Your task to perform on an android device: What's on my calendar today? Image 0: 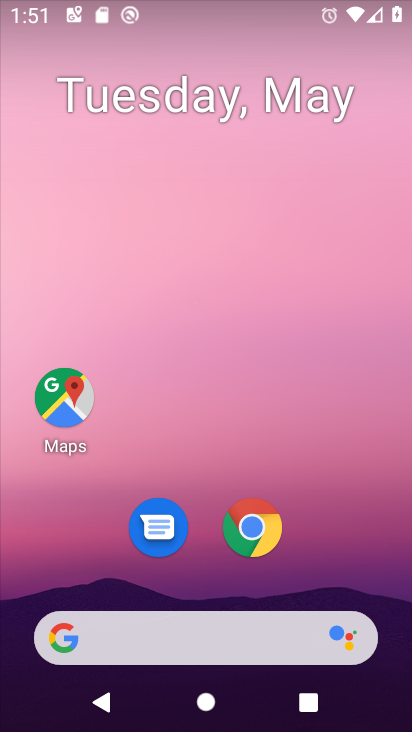
Step 0: drag from (237, 623) to (165, 268)
Your task to perform on an android device: What's on my calendar today? Image 1: 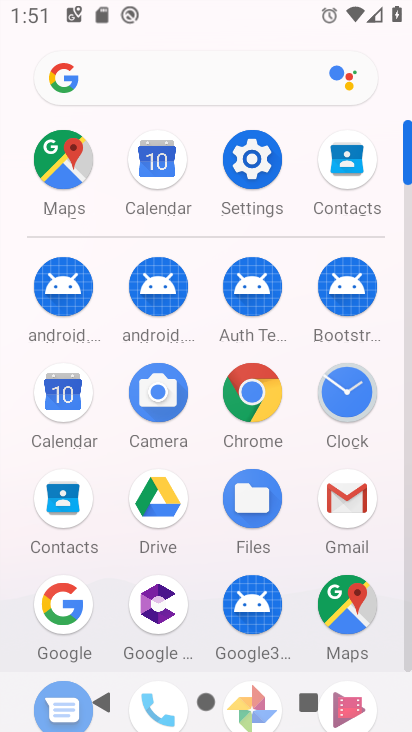
Step 1: click (162, 178)
Your task to perform on an android device: What's on my calendar today? Image 2: 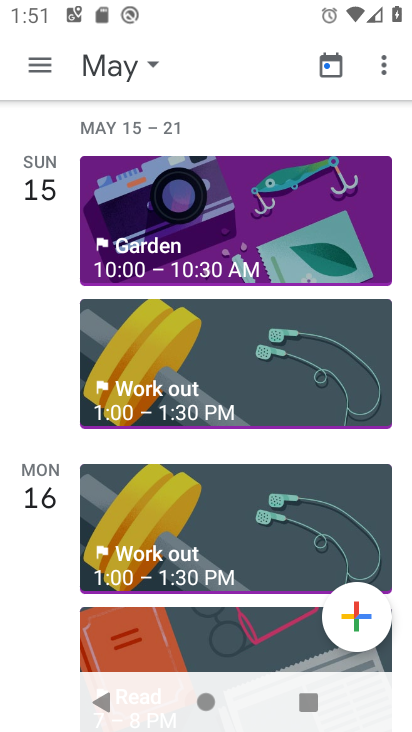
Step 2: click (103, 62)
Your task to perform on an android device: What's on my calendar today? Image 3: 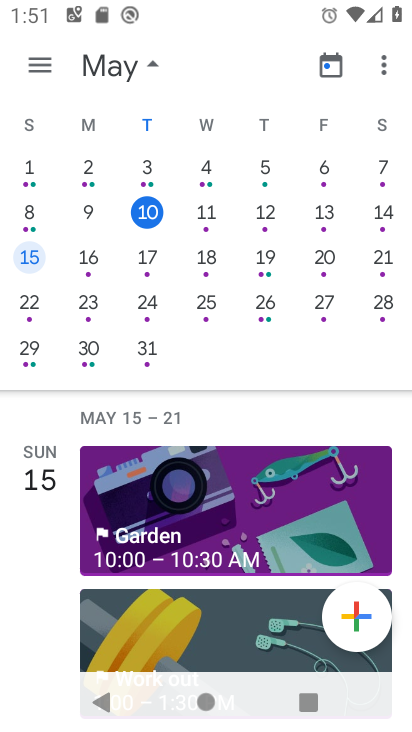
Step 3: click (156, 210)
Your task to perform on an android device: What's on my calendar today? Image 4: 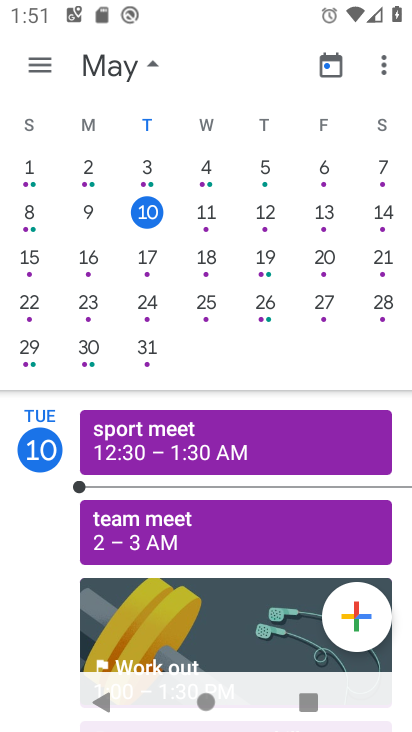
Step 4: task complete